Your task to perform on an android device: set the stopwatch Image 0: 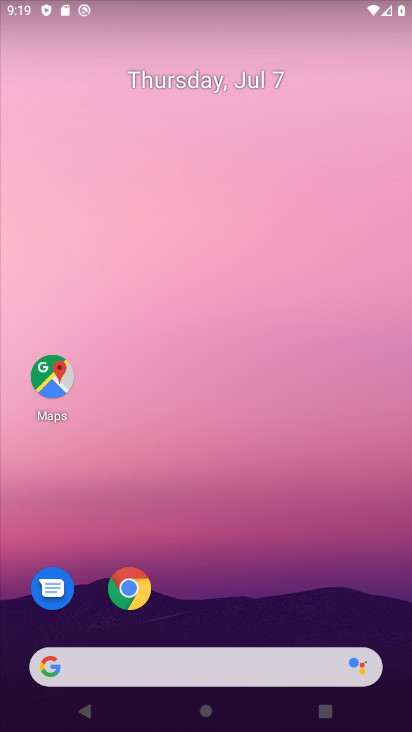
Step 0: drag from (187, 542) to (178, 484)
Your task to perform on an android device: set the stopwatch Image 1: 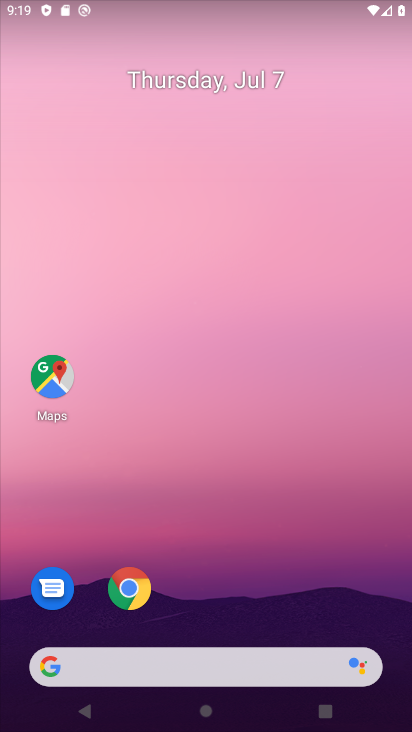
Step 1: drag from (221, 396) to (193, 11)
Your task to perform on an android device: set the stopwatch Image 2: 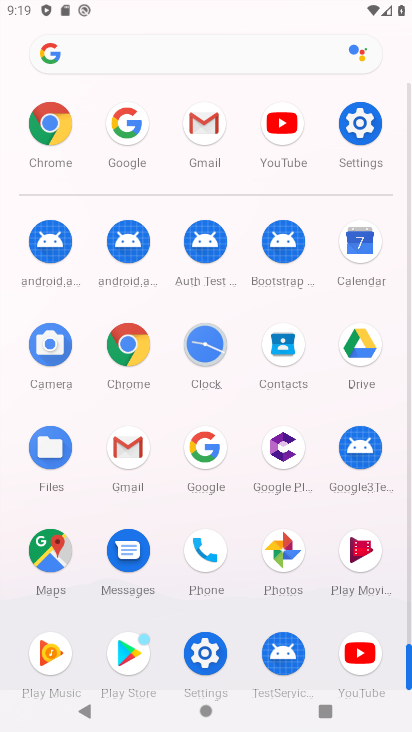
Step 2: click (208, 349)
Your task to perform on an android device: set the stopwatch Image 3: 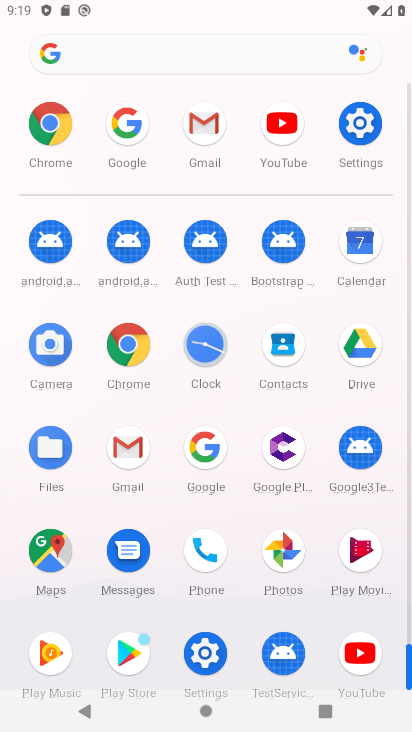
Step 3: click (207, 340)
Your task to perform on an android device: set the stopwatch Image 4: 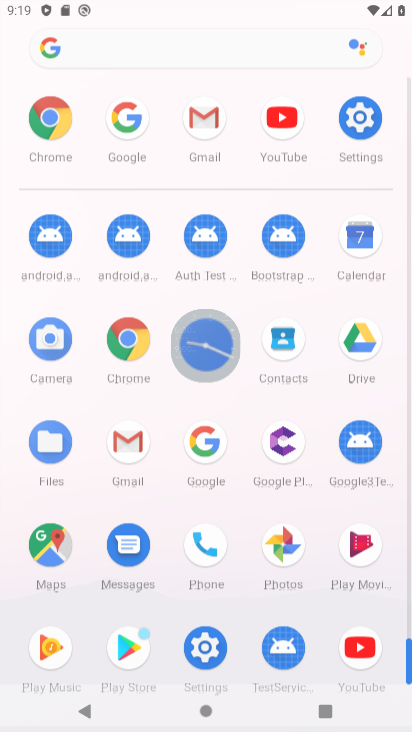
Step 4: click (209, 339)
Your task to perform on an android device: set the stopwatch Image 5: 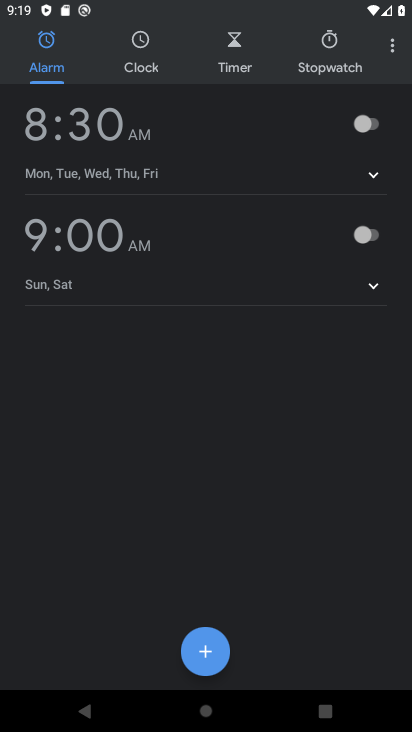
Step 5: click (320, 68)
Your task to perform on an android device: set the stopwatch Image 6: 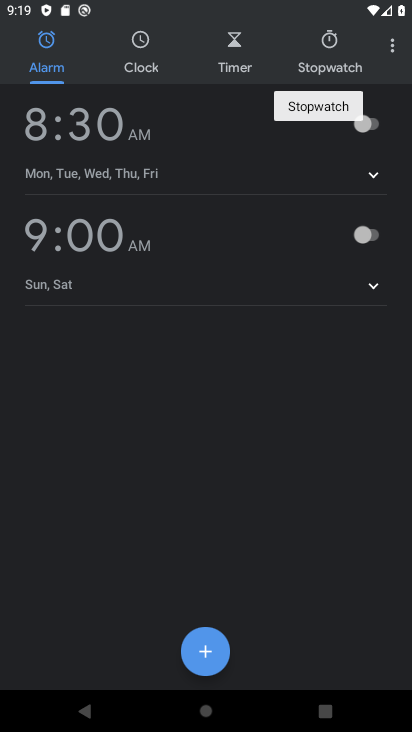
Step 6: click (325, 58)
Your task to perform on an android device: set the stopwatch Image 7: 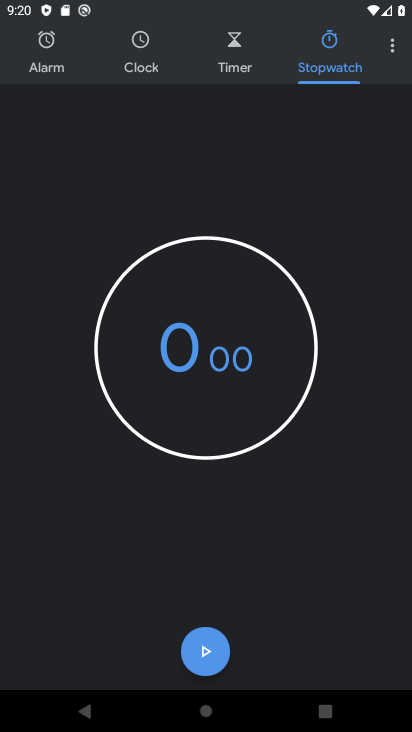
Step 7: click (215, 653)
Your task to perform on an android device: set the stopwatch Image 8: 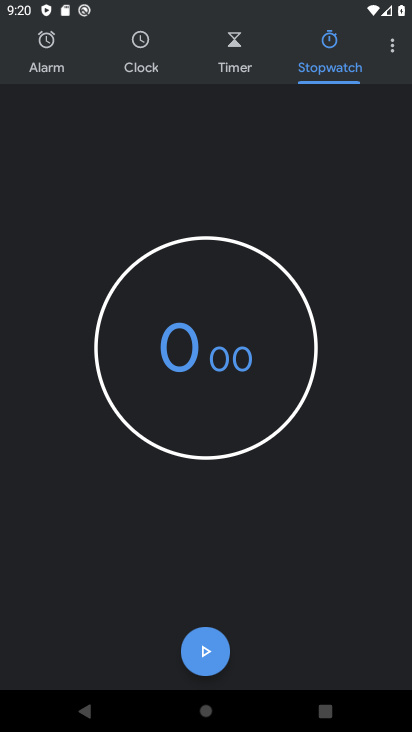
Step 8: click (214, 651)
Your task to perform on an android device: set the stopwatch Image 9: 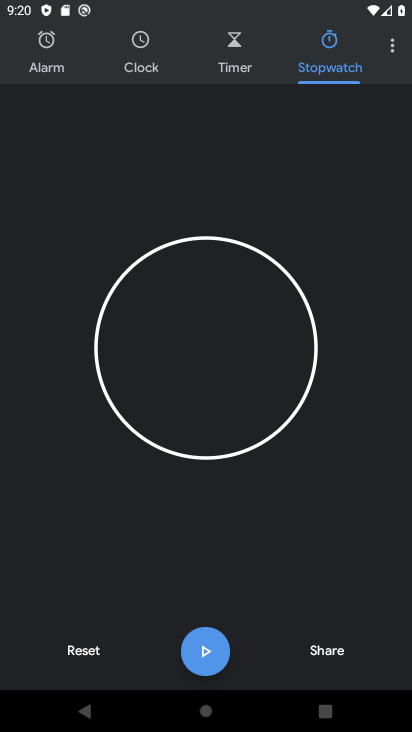
Step 9: click (203, 651)
Your task to perform on an android device: set the stopwatch Image 10: 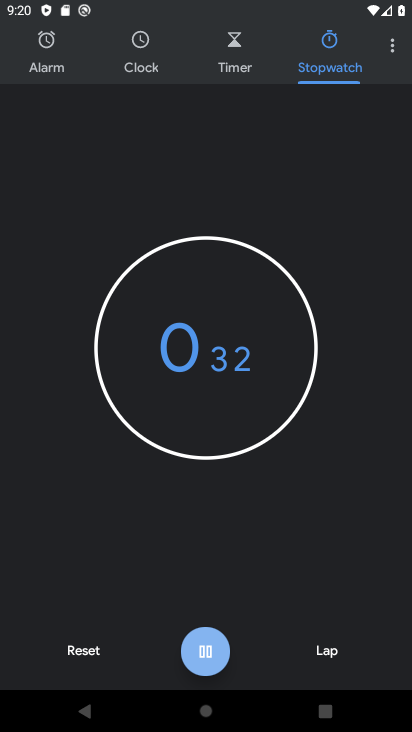
Step 10: click (193, 644)
Your task to perform on an android device: set the stopwatch Image 11: 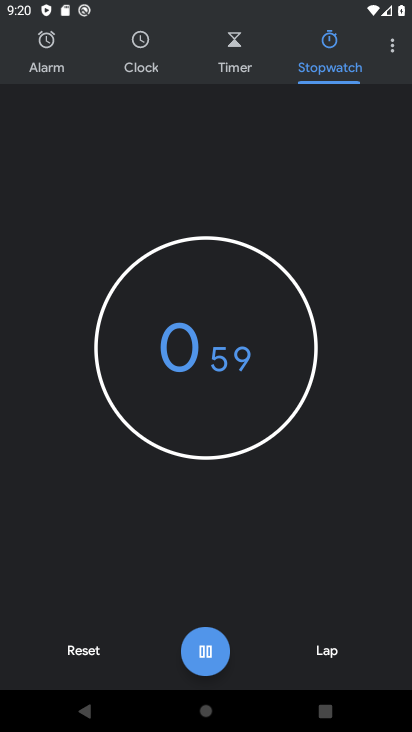
Step 11: click (193, 643)
Your task to perform on an android device: set the stopwatch Image 12: 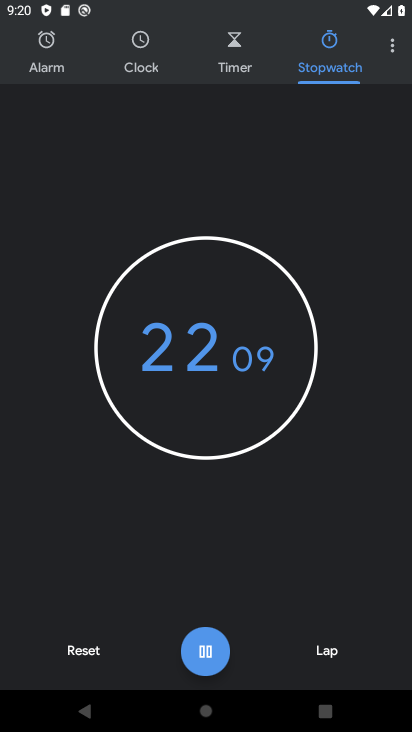
Step 12: click (204, 653)
Your task to perform on an android device: set the stopwatch Image 13: 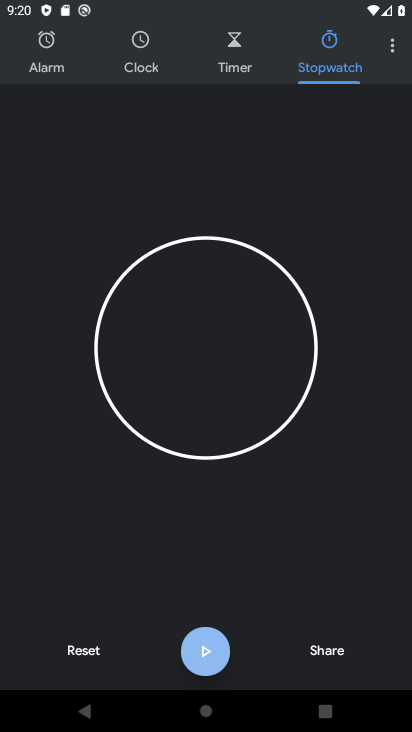
Step 13: click (203, 649)
Your task to perform on an android device: set the stopwatch Image 14: 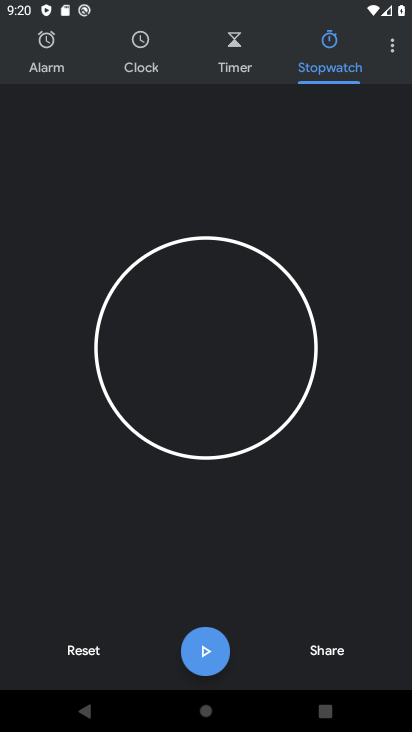
Step 14: click (203, 649)
Your task to perform on an android device: set the stopwatch Image 15: 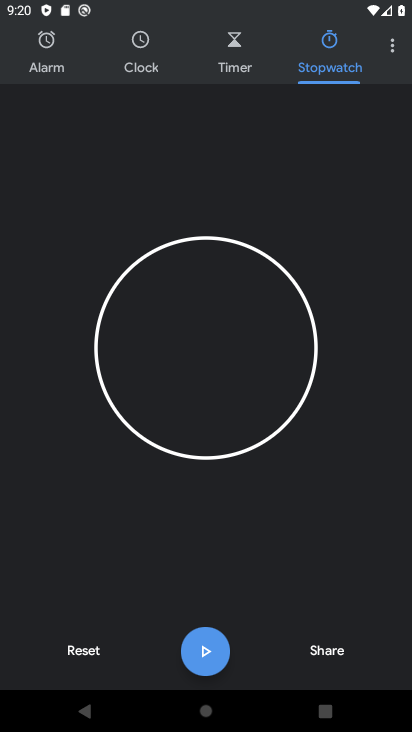
Step 15: task complete